Your task to perform on an android device: Search for a new bronzer Image 0: 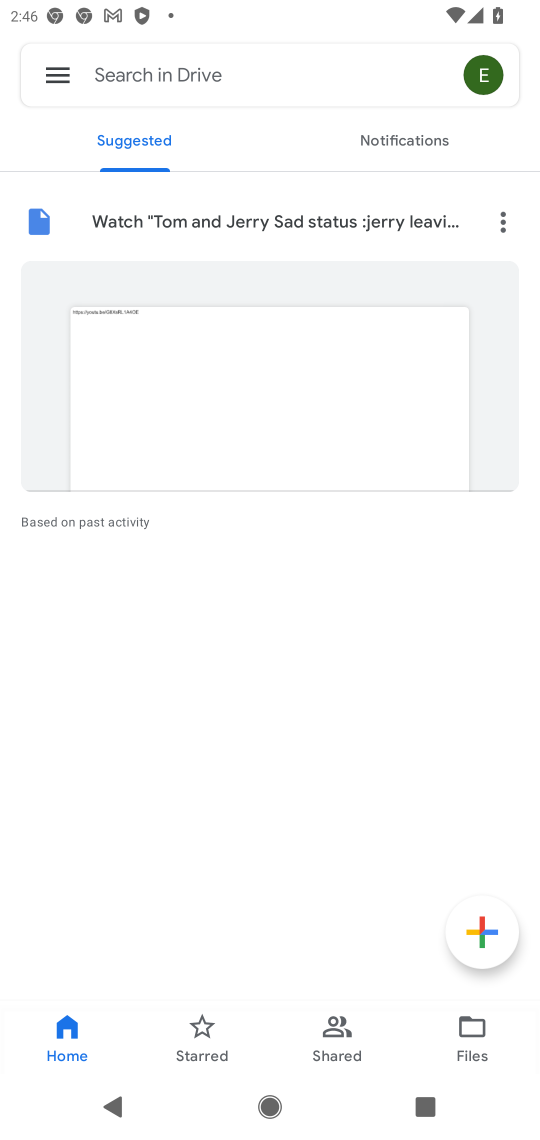
Step 0: press home button
Your task to perform on an android device: Search for a new bronzer Image 1: 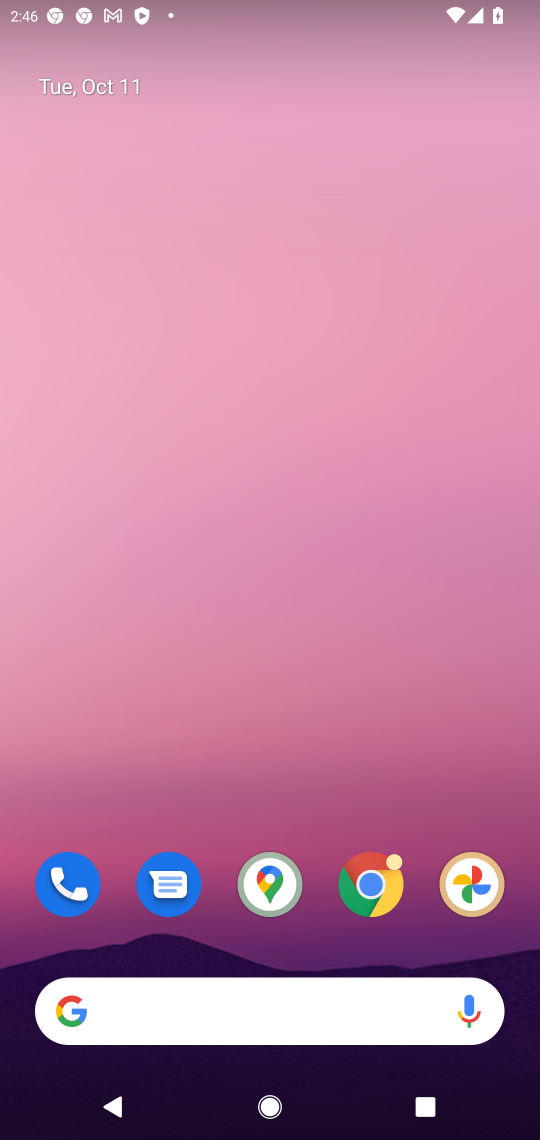
Step 1: click (370, 887)
Your task to perform on an android device: Search for a new bronzer Image 2: 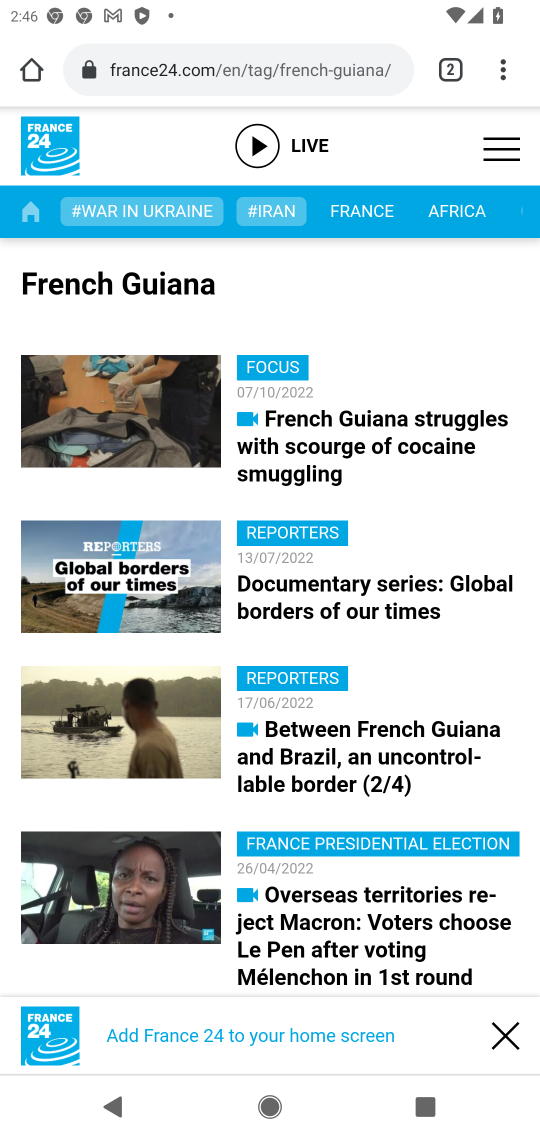
Step 2: click (285, 81)
Your task to perform on an android device: Search for a new bronzer Image 3: 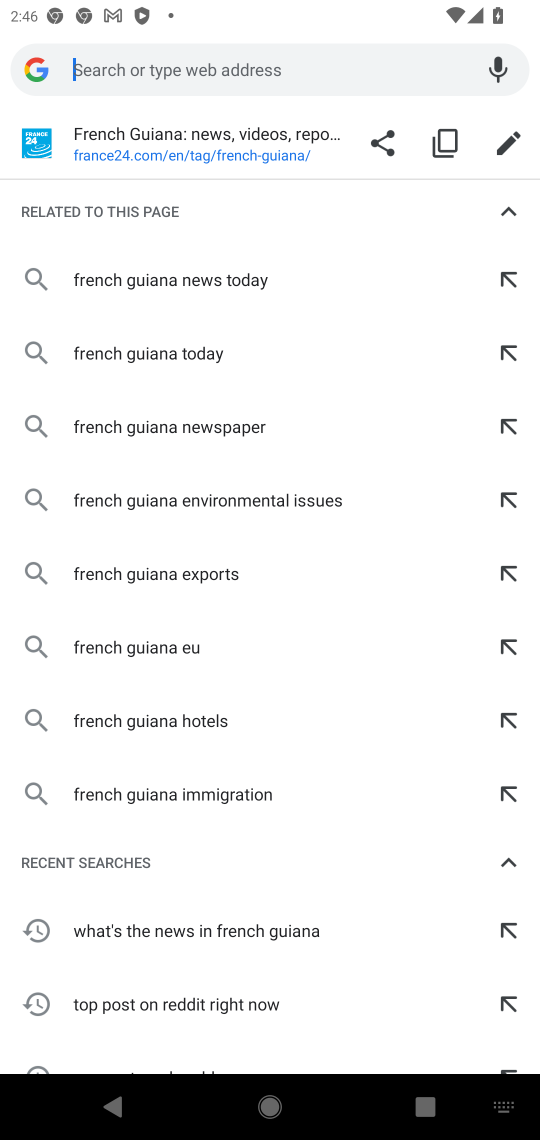
Step 3: type "new bronzer"
Your task to perform on an android device: Search for a new bronzer Image 4: 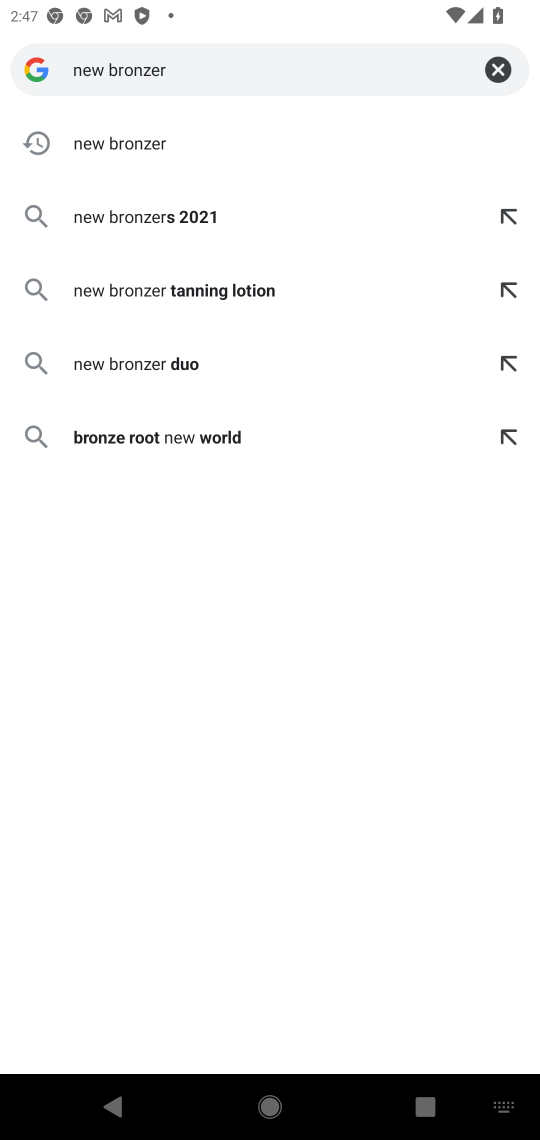
Step 4: click (160, 156)
Your task to perform on an android device: Search for a new bronzer Image 5: 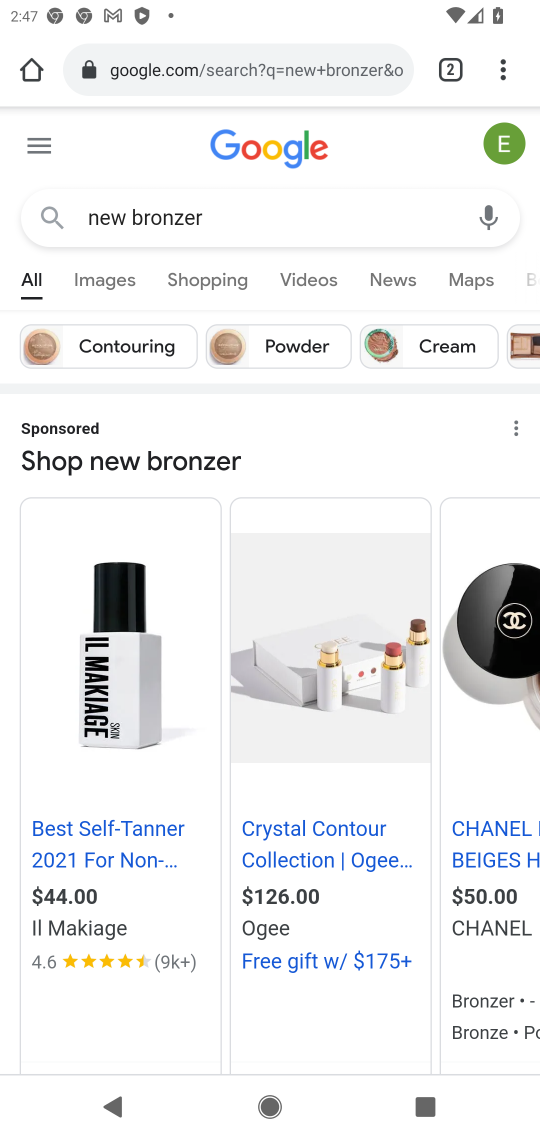
Step 5: task complete